Your task to perform on an android device: open sync settings in chrome Image 0: 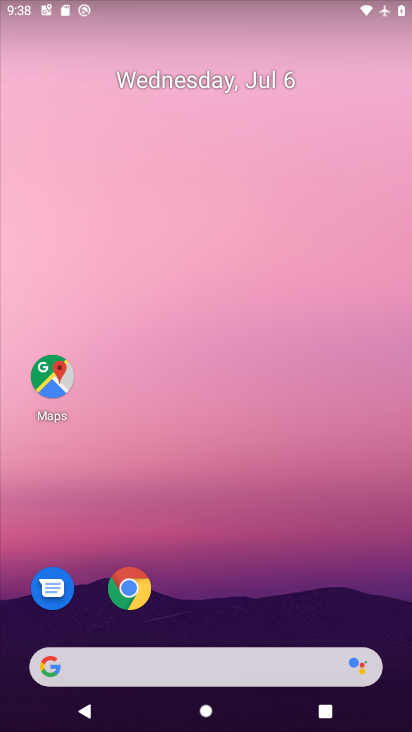
Step 0: drag from (200, 666) to (343, 0)
Your task to perform on an android device: open sync settings in chrome Image 1: 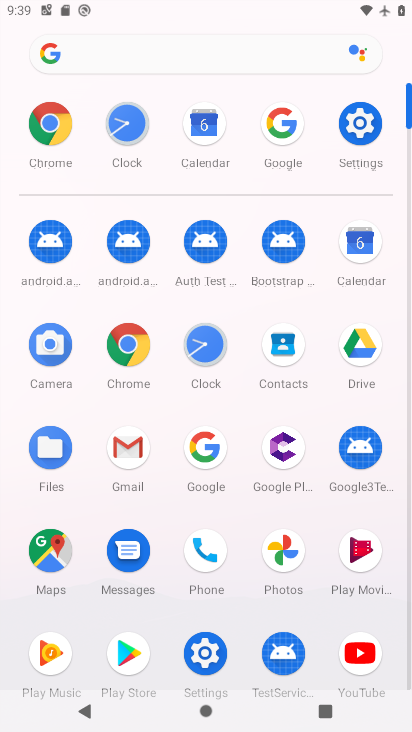
Step 1: click (138, 351)
Your task to perform on an android device: open sync settings in chrome Image 2: 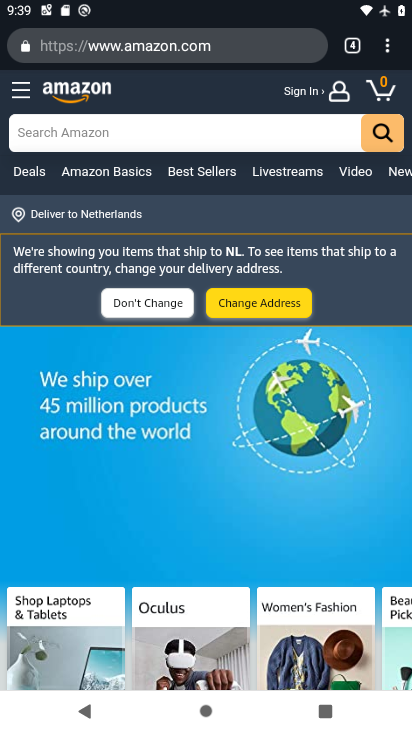
Step 2: click (383, 62)
Your task to perform on an android device: open sync settings in chrome Image 3: 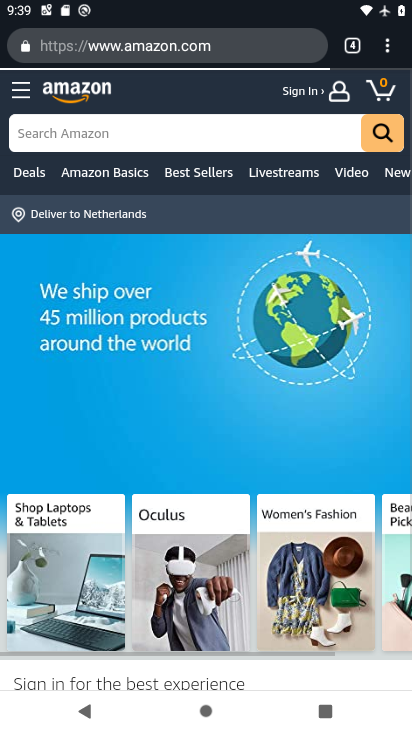
Step 3: click (383, 62)
Your task to perform on an android device: open sync settings in chrome Image 4: 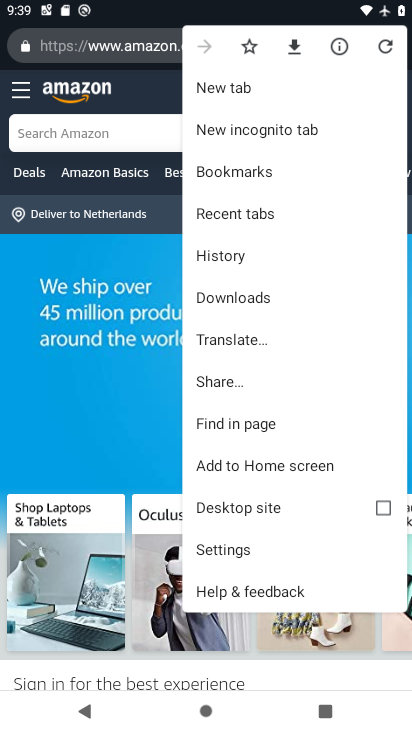
Step 4: click (231, 551)
Your task to perform on an android device: open sync settings in chrome Image 5: 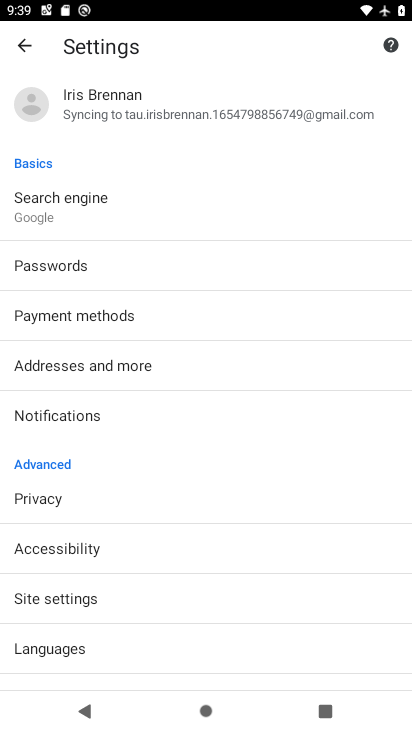
Step 5: click (170, 118)
Your task to perform on an android device: open sync settings in chrome Image 6: 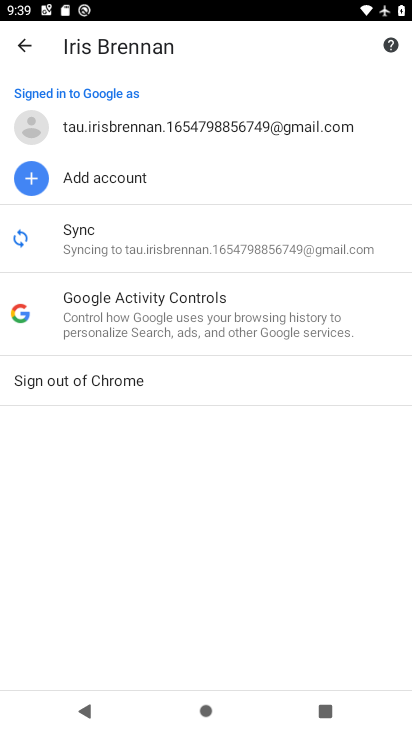
Step 6: click (132, 243)
Your task to perform on an android device: open sync settings in chrome Image 7: 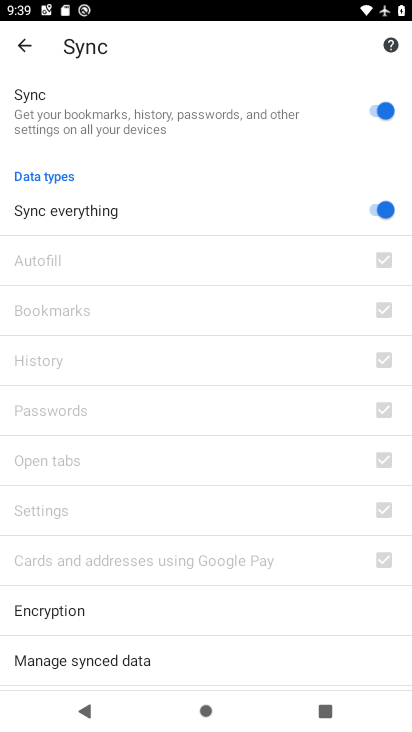
Step 7: task complete